Your task to perform on an android device: What is the recent news? Image 0: 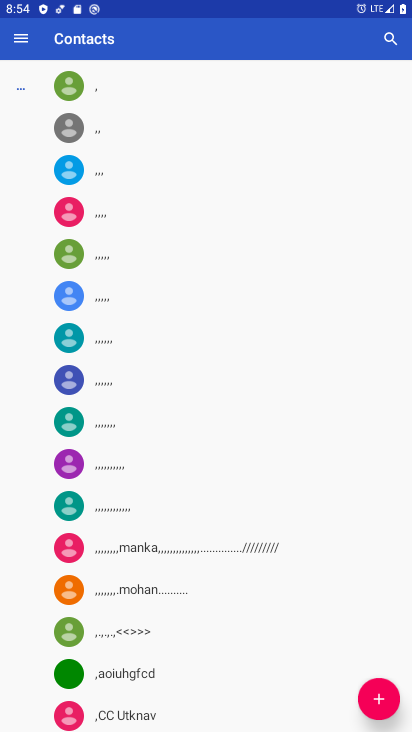
Step 0: press home button
Your task to perform on an android device: What is the recent news? Image 1: 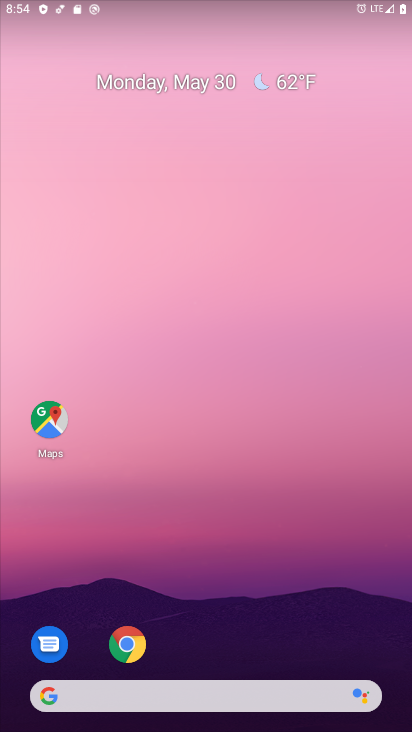
Step 1: task complete